Your task to perform on an android device: change the clock display to digital Image 0: 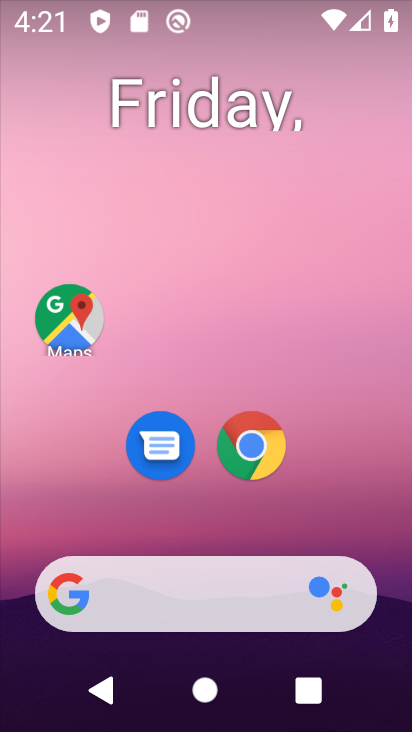
Step 0: press home button
Your task to perform on an android device: change the clock display to digital Image 1: 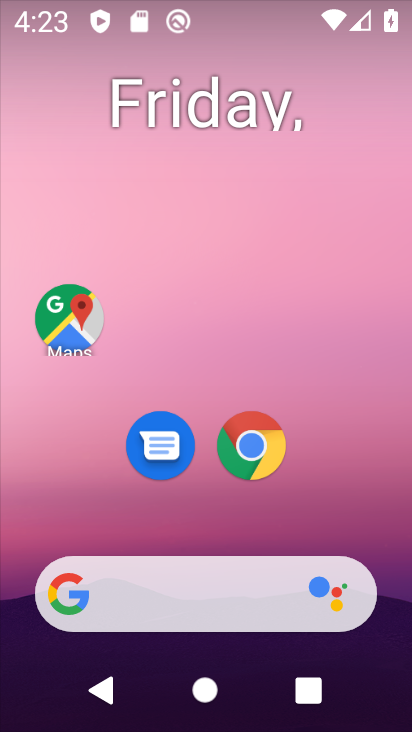
Step 1: press home button
Your task to perform on an android device: change the clock display to digital Image 2: 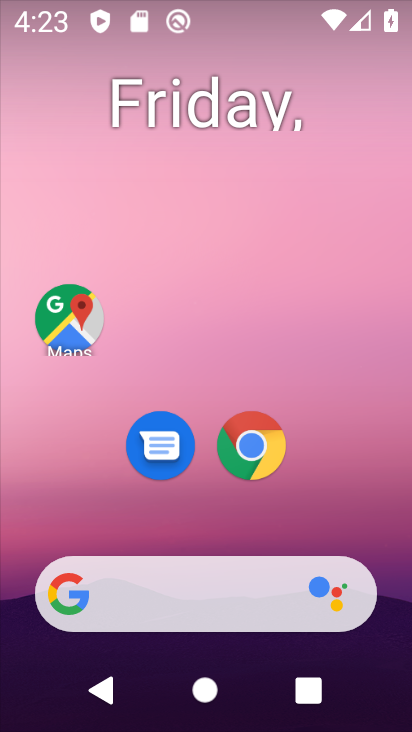
Step 2: drag from (288, 129) to (272, 2)
Your task to perform on an android device: change the clock display to digital Image 3: 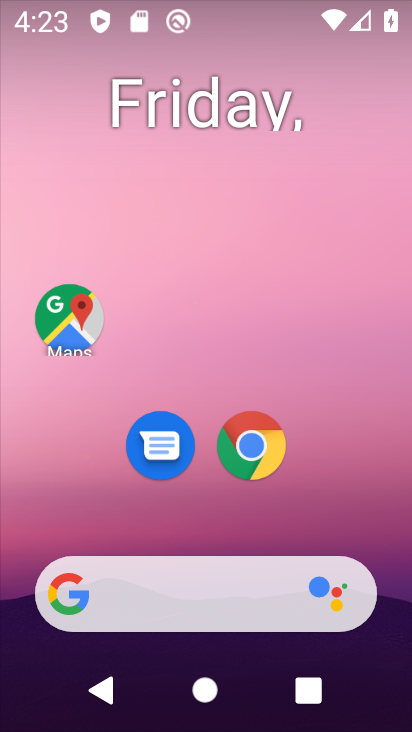
Step 3: drag from (326, 503) to (283, 10)
Your task to perform on an android device: change the clock display to digital Image 4: 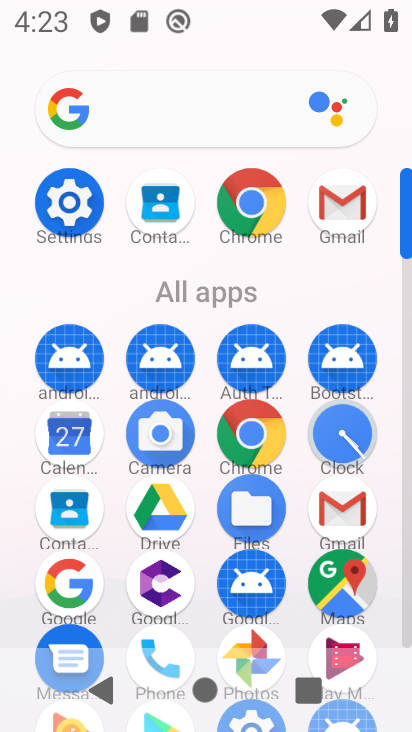
Step 4: click (340, 435)
Your task to perform on an android device: change the clock display to digital Image 5: 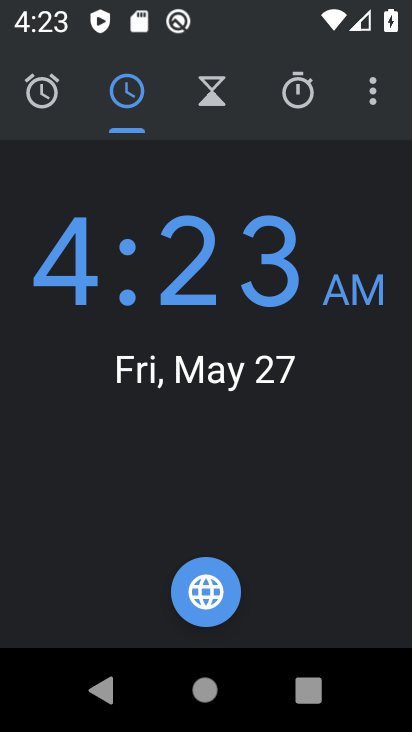
Step 5: click (373, 95)
Your task to perform on an android device: change the clock display to digital Image 6: 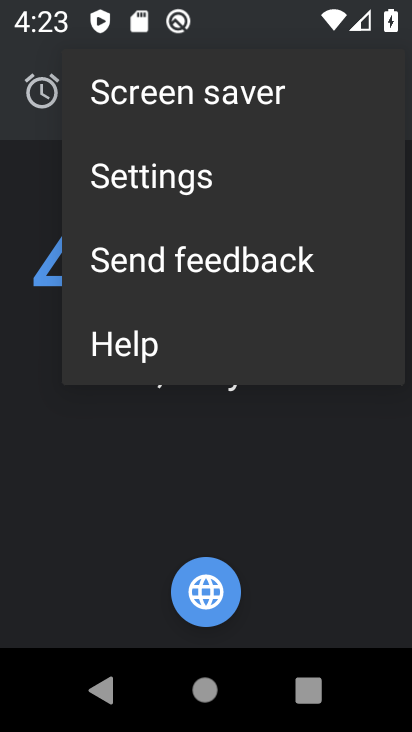
Step 6: click (152, 186)
Your task to perform on an android device: change the clock display to digital Image 7: 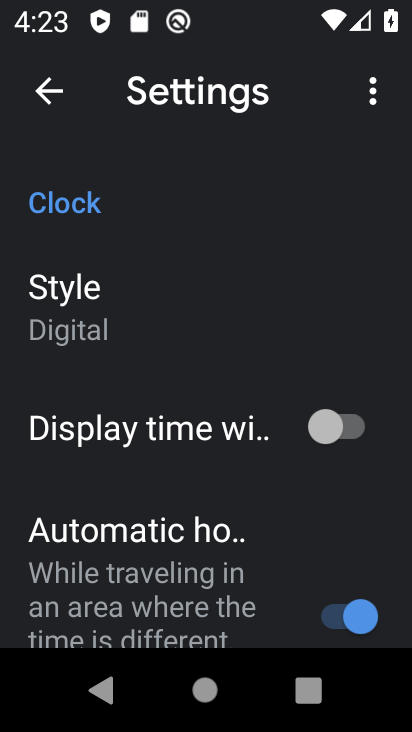
Step 7: click (107, 309)
Your task to perform on an android device: change the clock display to digital Image 8: 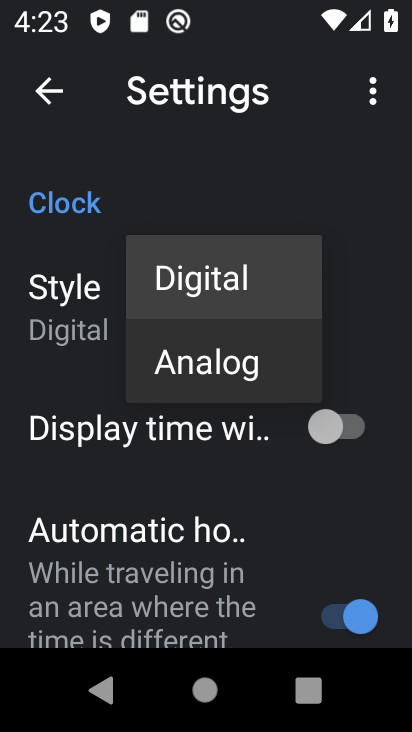
Step 8: task complete